Your task to perform on an android device: Open Yahoo.com Image 0: 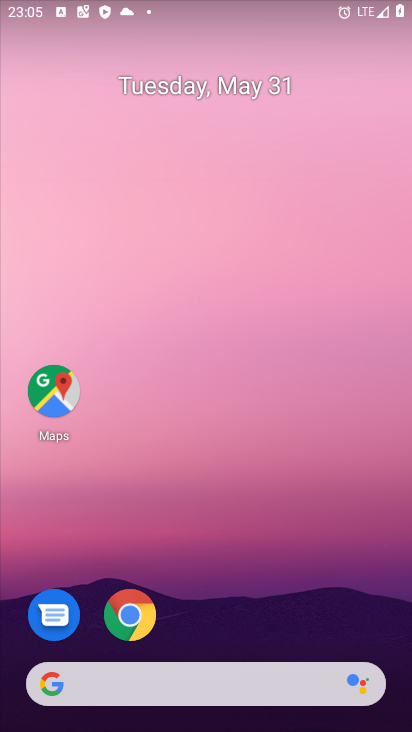
Step 0: click (129, 614)
Your task to perform on an android device: Open Yahoo.com Image 1: 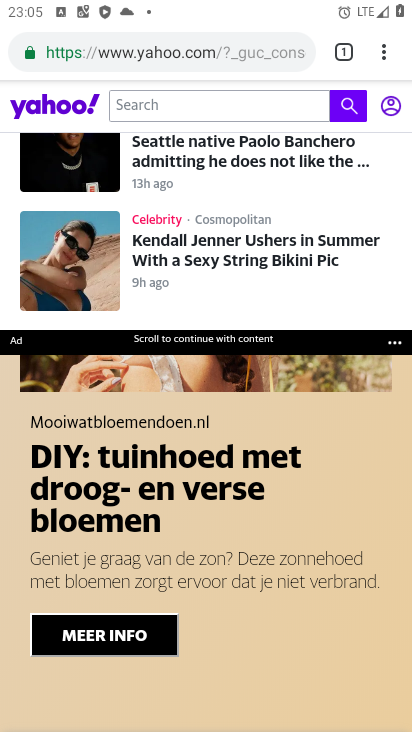
Step 1: task complete